Your task to perform on an android device: Open Youtube and go to the subscriptions tab Image 0: 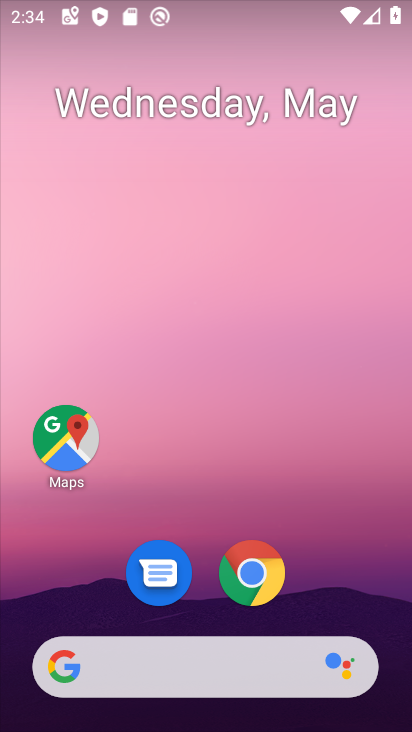
Step 0: drag from (355, 595) to (329, 52)
Your task to perform on an android device: Open Youtube and go to the subscriptions tab Image 1: 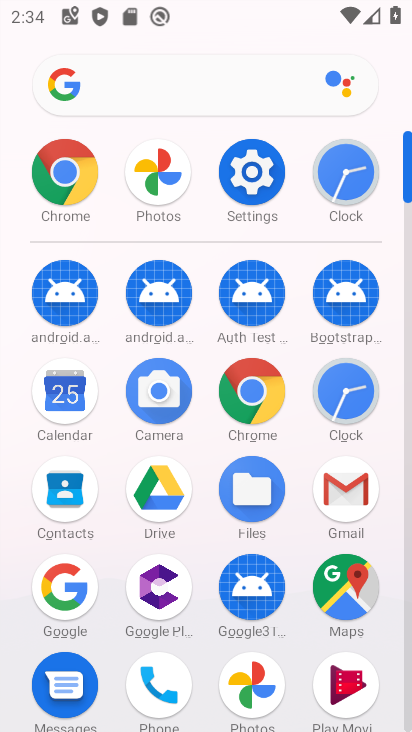
Step 1: drag from (203, 651) to (266, 262)
Your task to perform on an android device: Open Youtube and go to the subscriptions tab Image 2: 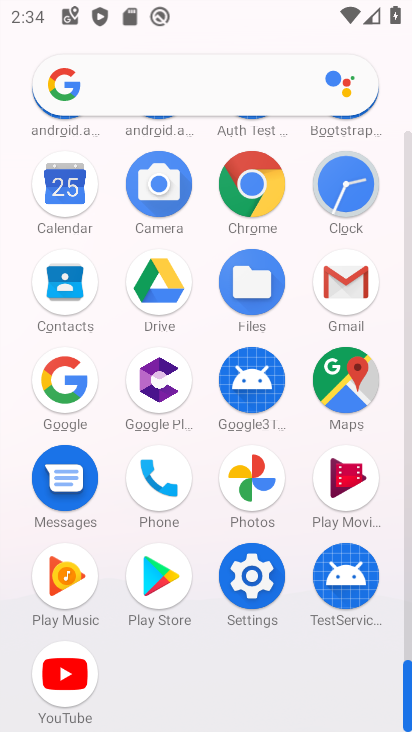
Step 2: click (53, 678)
Your task to perform on an android device: Open Youtube and go to the subscriptions tab Image 3: 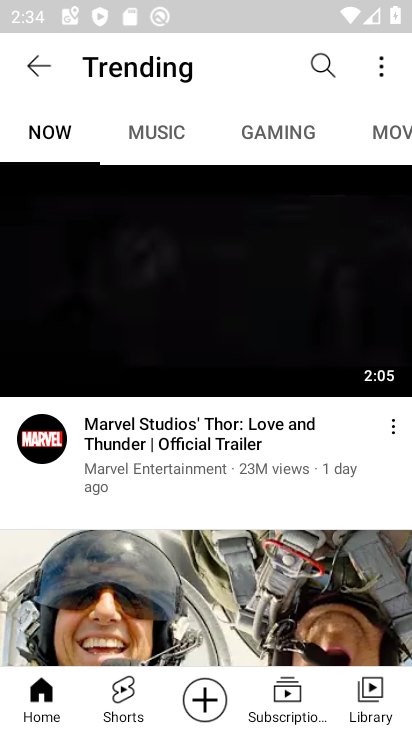
Step 3: click (287, 689)
Your task to perform on an android device: Open Youtube and go to the subscriptions tab Image 4: 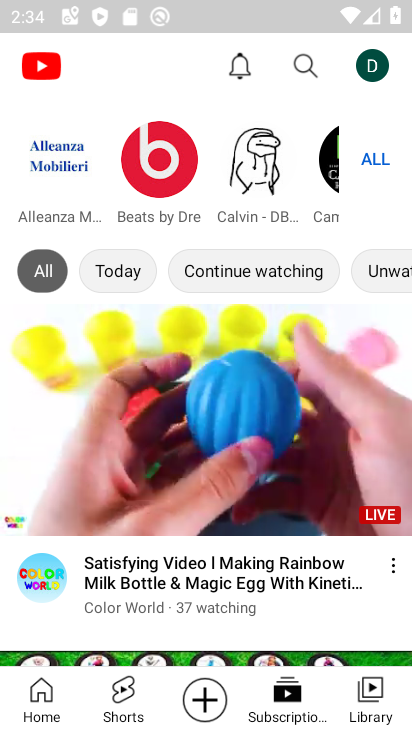
Step 4: task complete